Your task to perform on an android device: Open network settings Image 0: 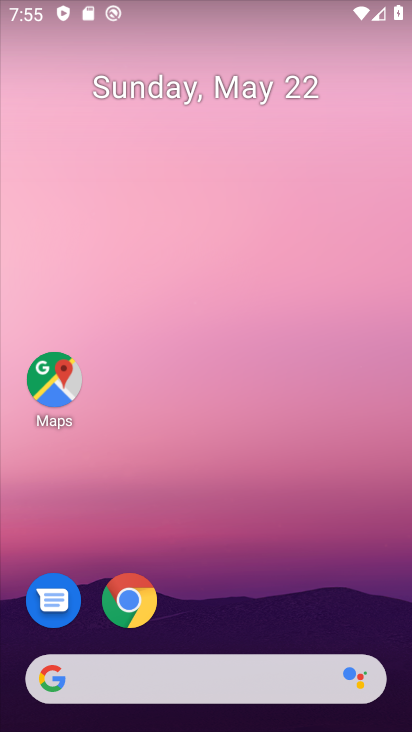
Step 0: drag from (215, 655) to (219, 250)
Your task to perform on an android device: Open network settings Image 1: 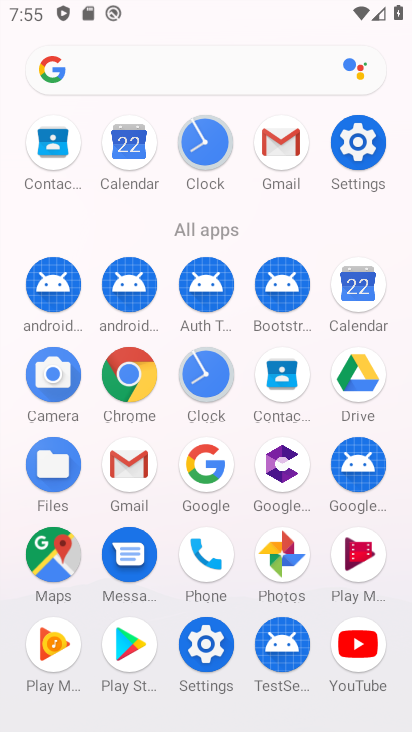
Step 1: click (345, 150)
Your task to perform on an android device: Open network settings Image 2: 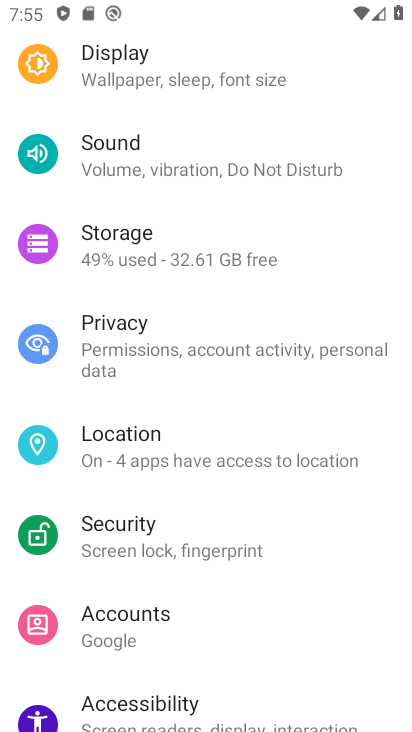
Step 2: drag from (249, 112) to (280, 628)
Your task to perform on an android device: Open network settings Image 3: 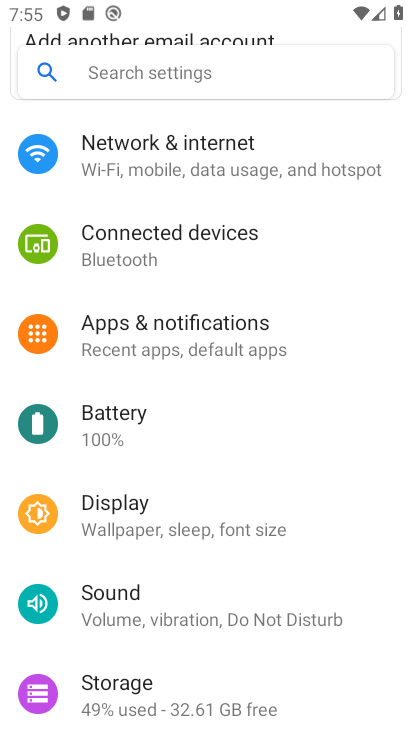
Step 3: click (241, 154)
Your task to perform on an android device: Open network settings Image 4: 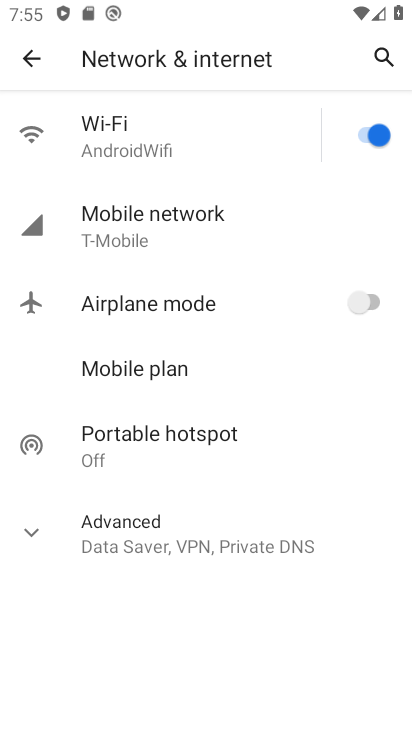
Step 4: click (170, 534)
Your task to perform on an android device: Open network settings Image 5: 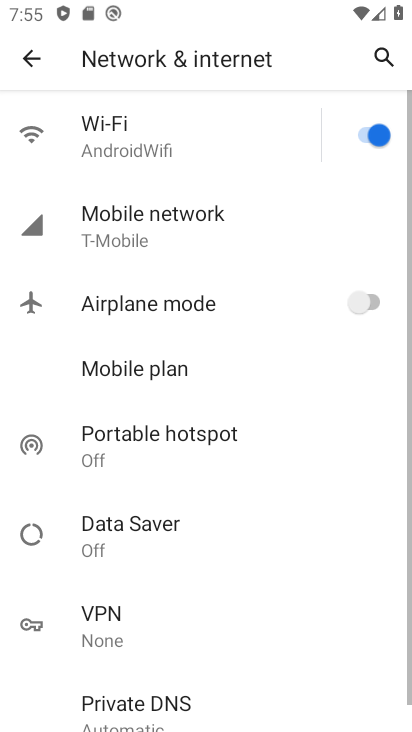
Step 5: task complete